Your task to perform on an android device: turn notification dots off Image 0: 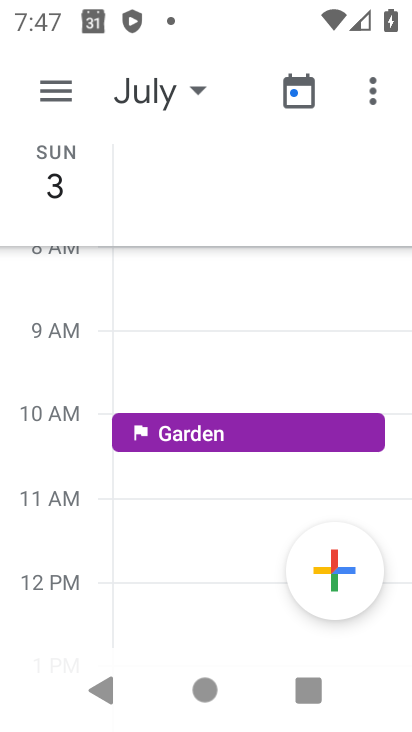
Step 0: press home button
Your task to perform on an android device: turn notification dots off Image 1: 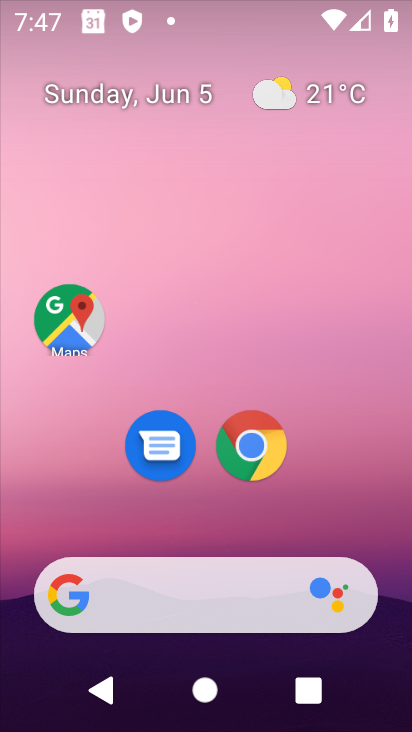
Step 1: drag from (340, 499) to (345, 59)
Your task to perform on an android device: turn notification dots off Image 2: 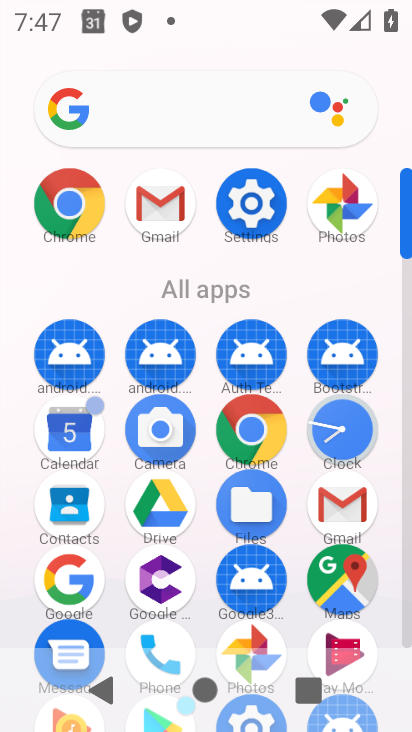
Step 2: click (263, 205)
Your task to perform on an android device: turn notification dots off Image 3: 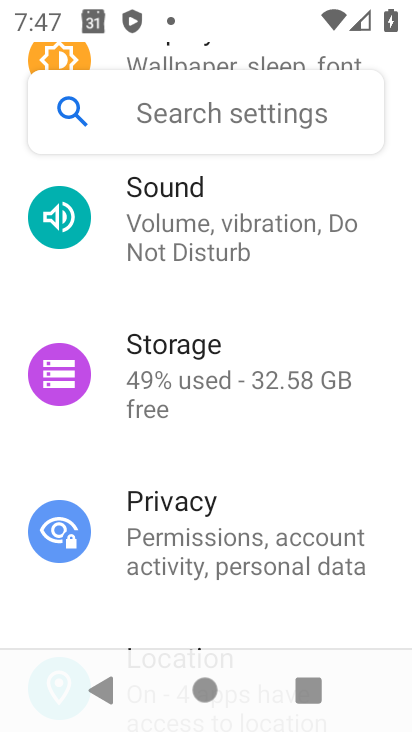
Step 3: drag from (317, 279) to (212, 729)
Your task to perform on an android device: turn notification dots off Image 4: 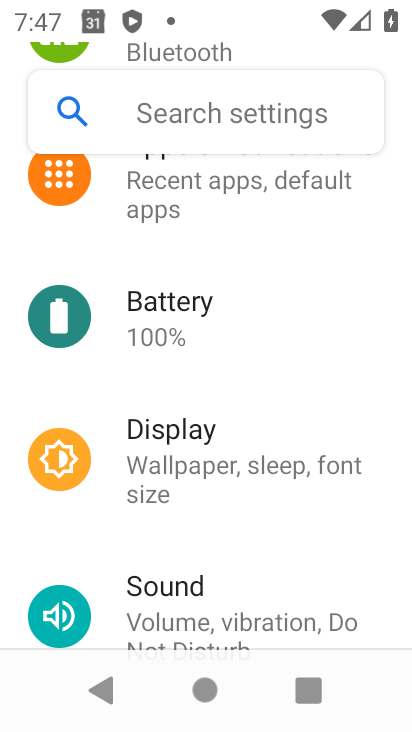
Step 4: drag from (313, 234) to (308, 604)
Your task to perform on an android device: turn notification dots off Image 5: 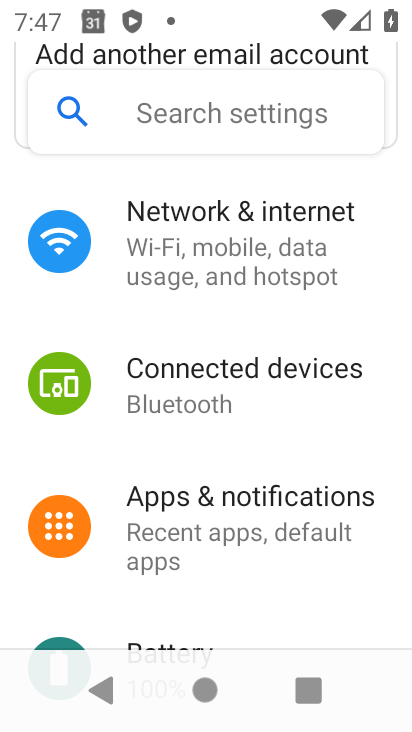
Step 5: click (270, 521)
Your task to perform on an android device: turn notification dots off Image 6: 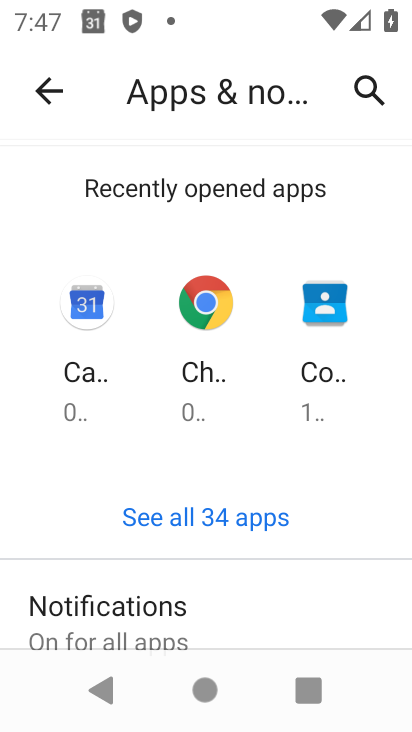
Step 6: drag from (35, 517) to (126, 0)
Your task to perform on an android device: turn notification dots off Image 7: 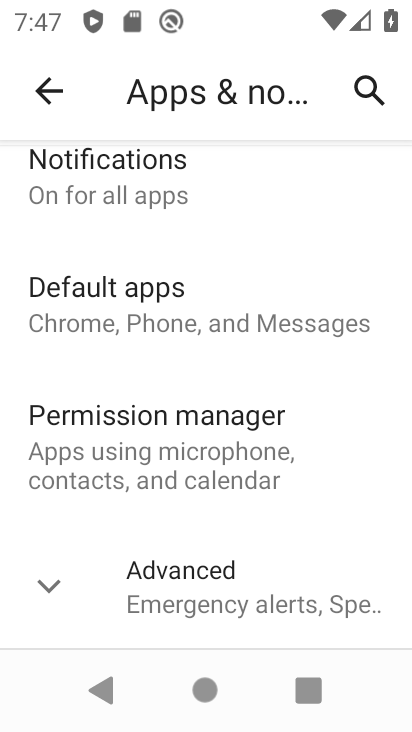
Step 7: click (280, 173)
Your task to perform on an android device: turn notification dots off Image 8: 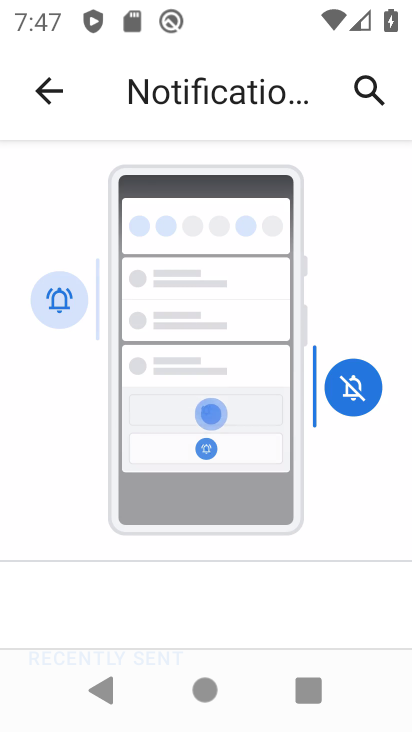
Step 8: drag from (42, 601) to (121, 2)
Your task to perform on an android device: turn notification dots off Image 9: 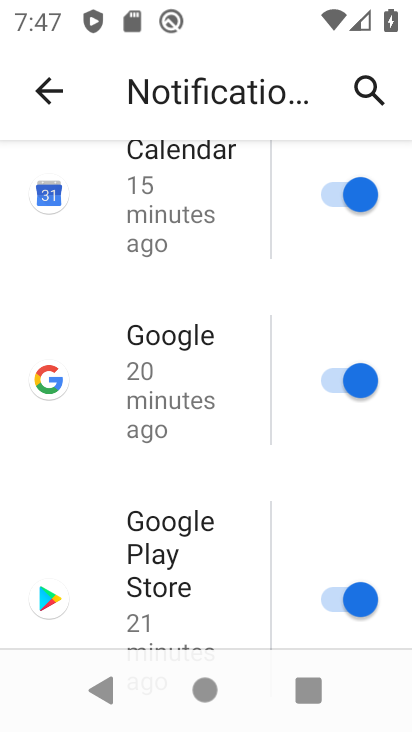
Step 9: drag from (63, 624) to (141, 5)
Your task to perform on an android device: turn notification dots off Image 10: 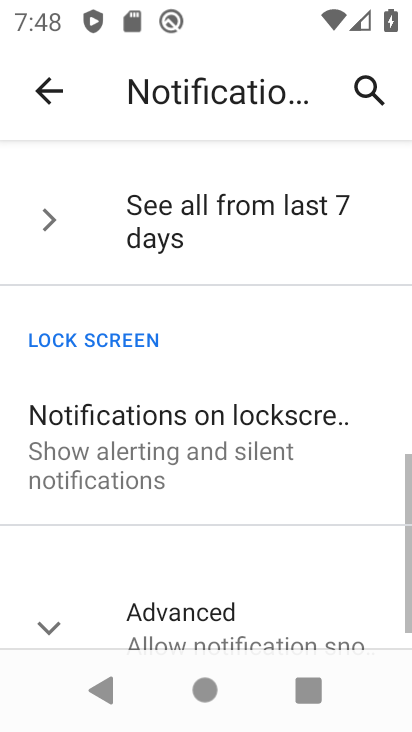
Step 10: click (46, 626)
Your task to perform on an android device: turn notification dots off Image 11: 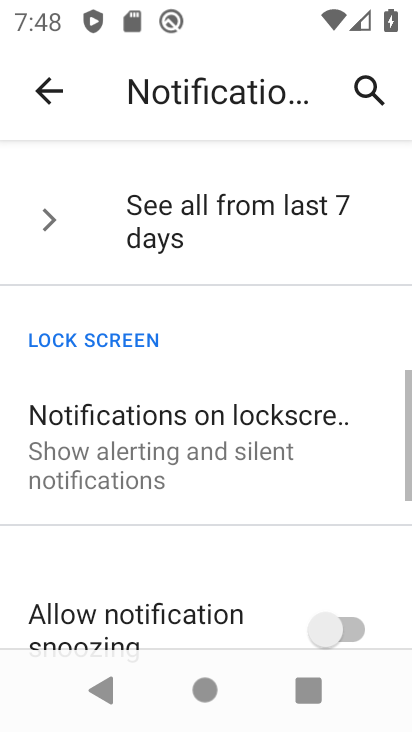
Step 11: drag from (66, 548) to (123, 97)
Your task to perform on an android device: turn notification dots off Image 12: 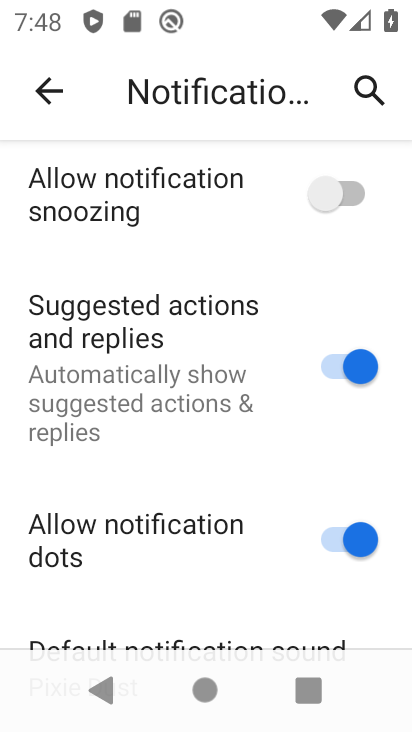
Step 12: click (342, 543)
Your task to perform on an android device: turn notification dots off Image 13: 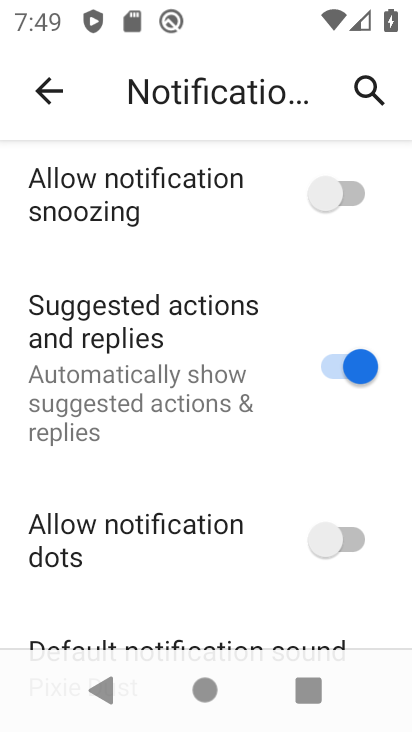
Step 13: task complete